Your task to perform on an android device: Add "dell xps" to the cart on ebay, then select checkout. Image 0: 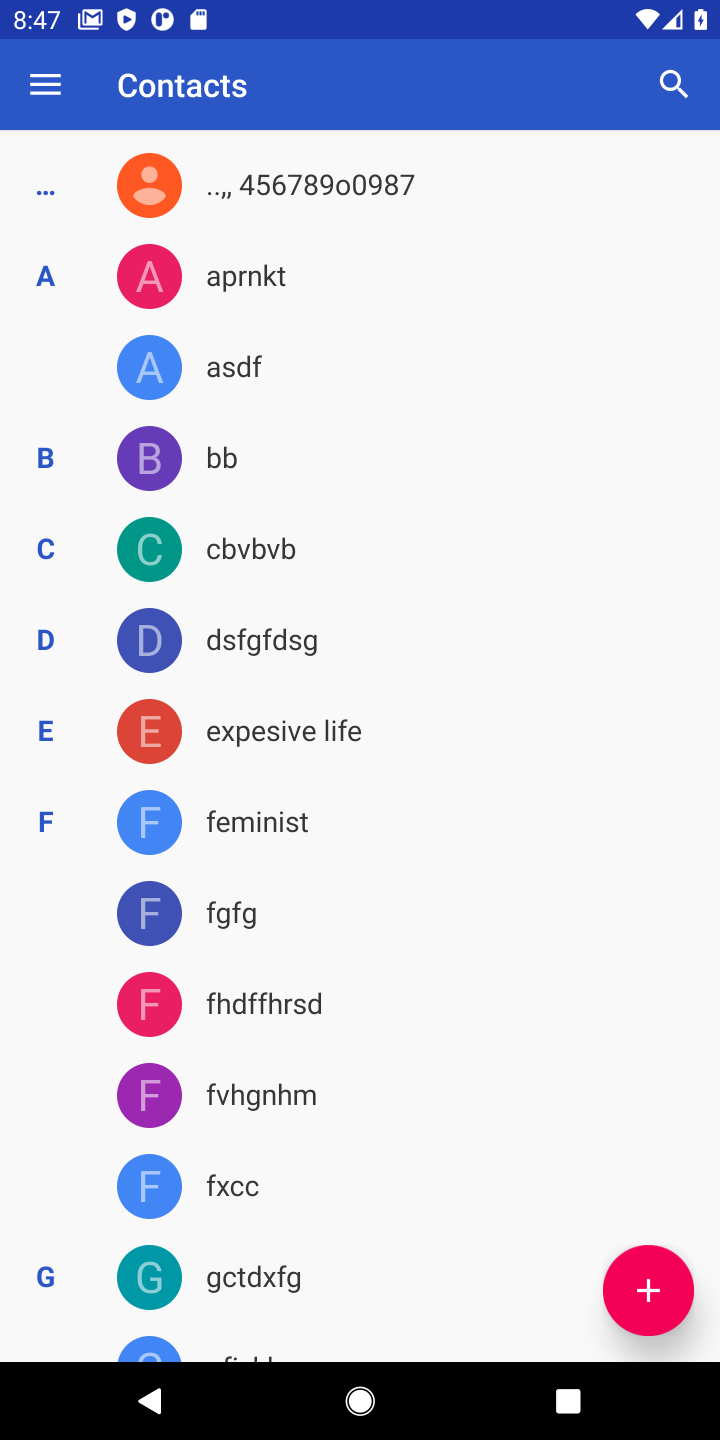
Step 0: press home button
Your task to perform on an android device: Add "dell xps" to the cart on ebay, then select checkout. Image 1: 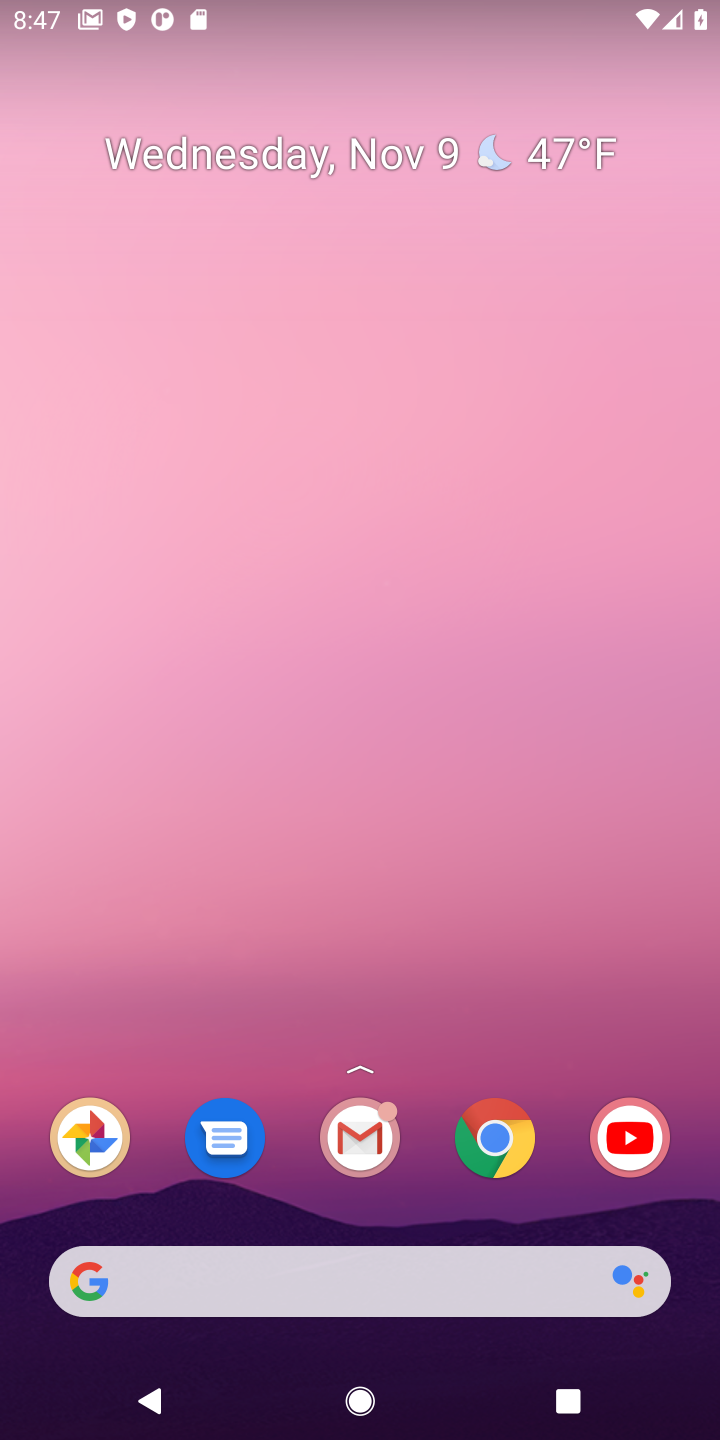
Step 1: drag from (409, 1236) to (293, 237)
Your task to perform on an android device: Add "dell xps" to the cart on ebay, then select checkout. Image 2: 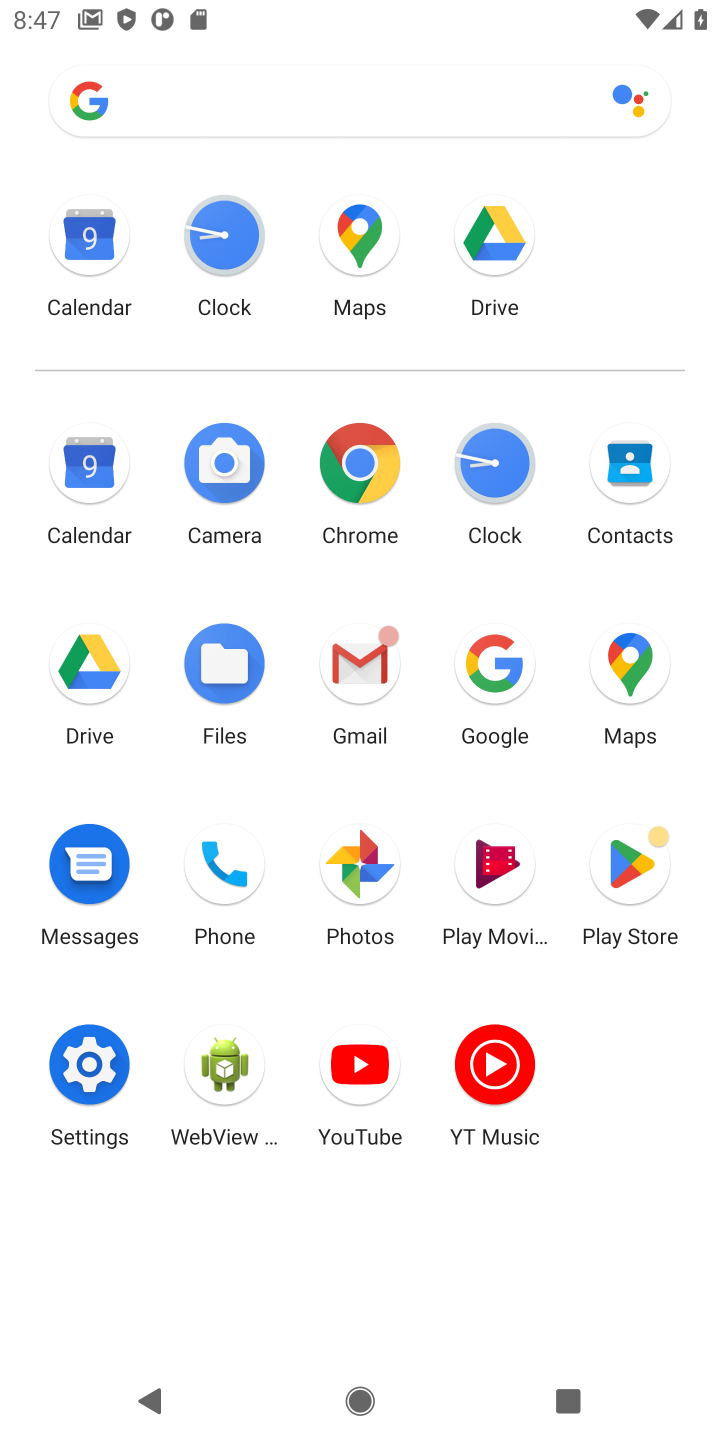
Step 2: click (367, 468)
Your task to perform on an android device: Add "dell xps" to the cart on ebay, then select checkout. Image 3: 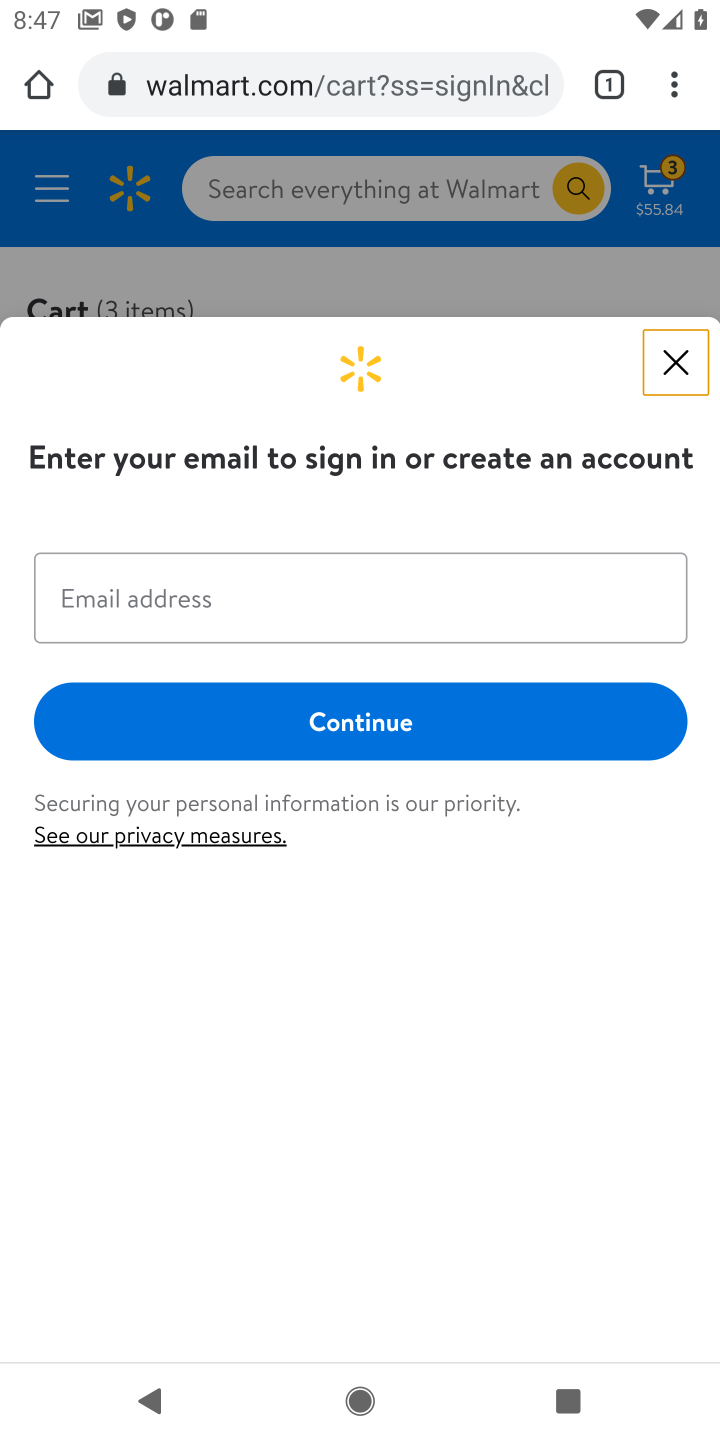
Step 3: click (317, 97)
Your task to perform on an android device: Add "dell xps" to the cart on ebay, then select checkout. Image 4: 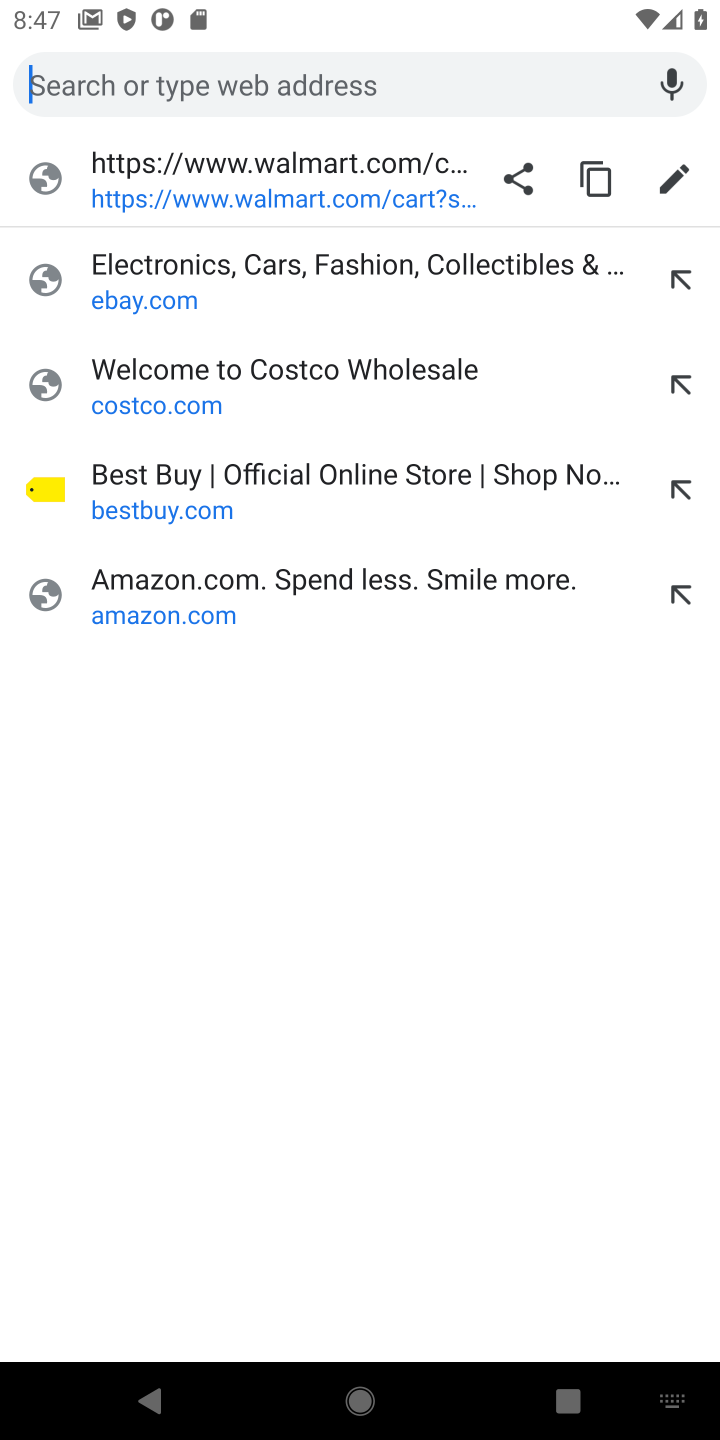
Step 4: type "ebay.com"
Your task to perform on an android device: Add "dell xps" to the cart on ebay, then select checkout. Image 5: 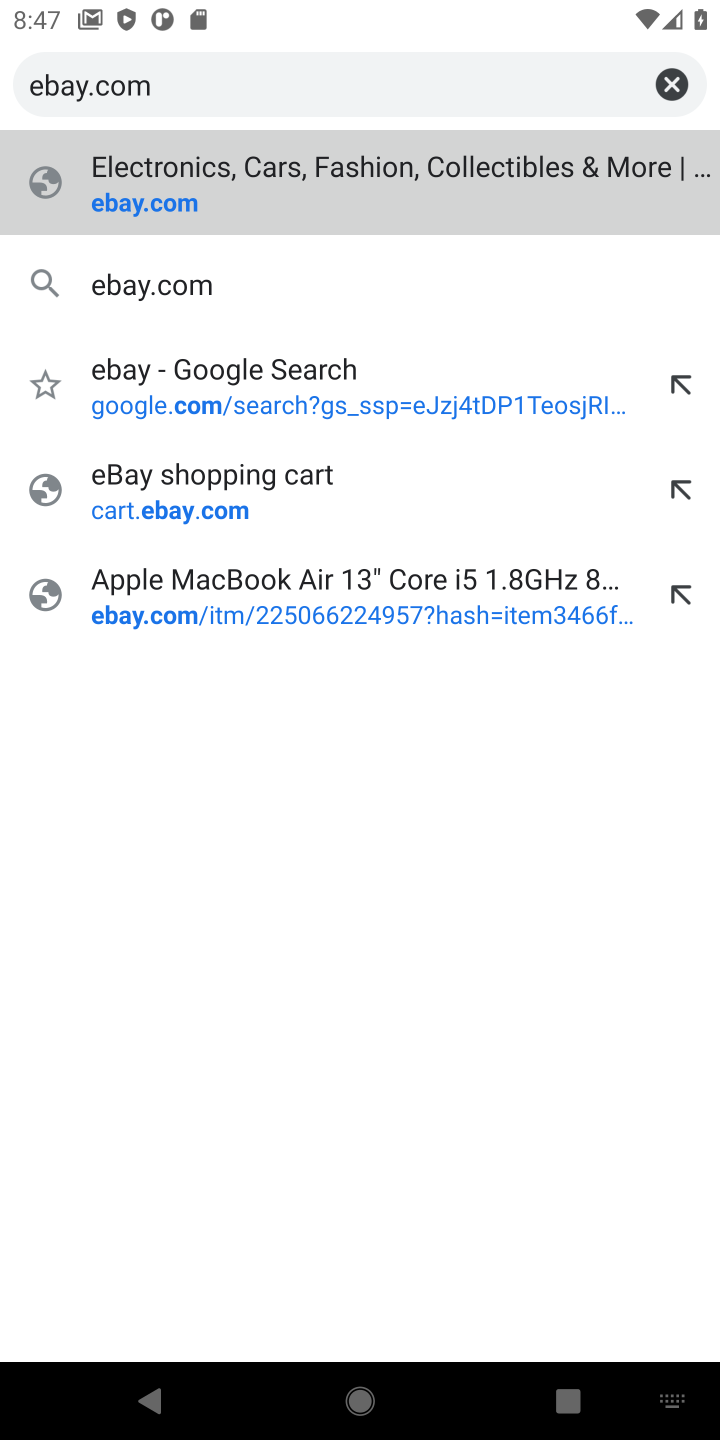
Step 5: press enter
Your task to perform on an android device: Add "dell xps" to the cart on ebay, then select checkout. Image 6: 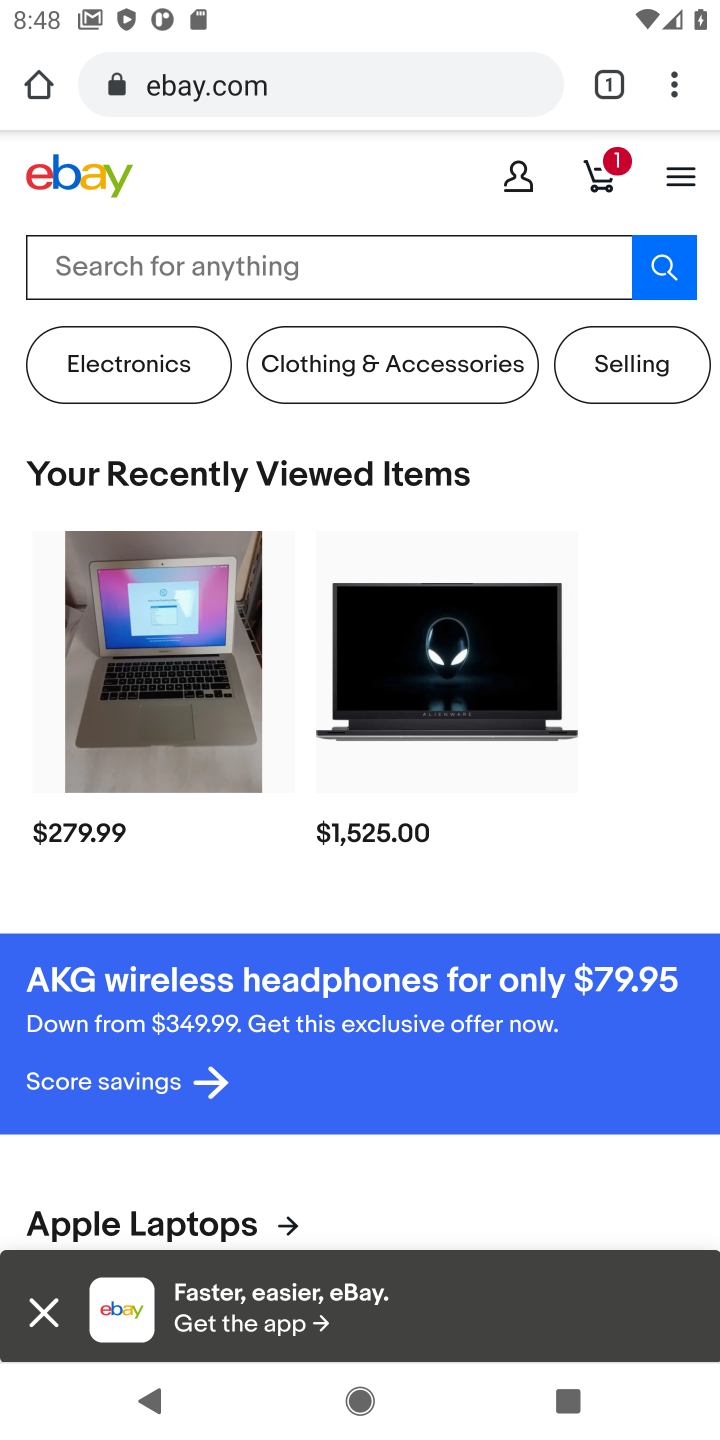
Step 6: click (332, 280)
Your task to perform on an android device: Add "dell xps" to the cart on ebay, then select checkout. Image 7: 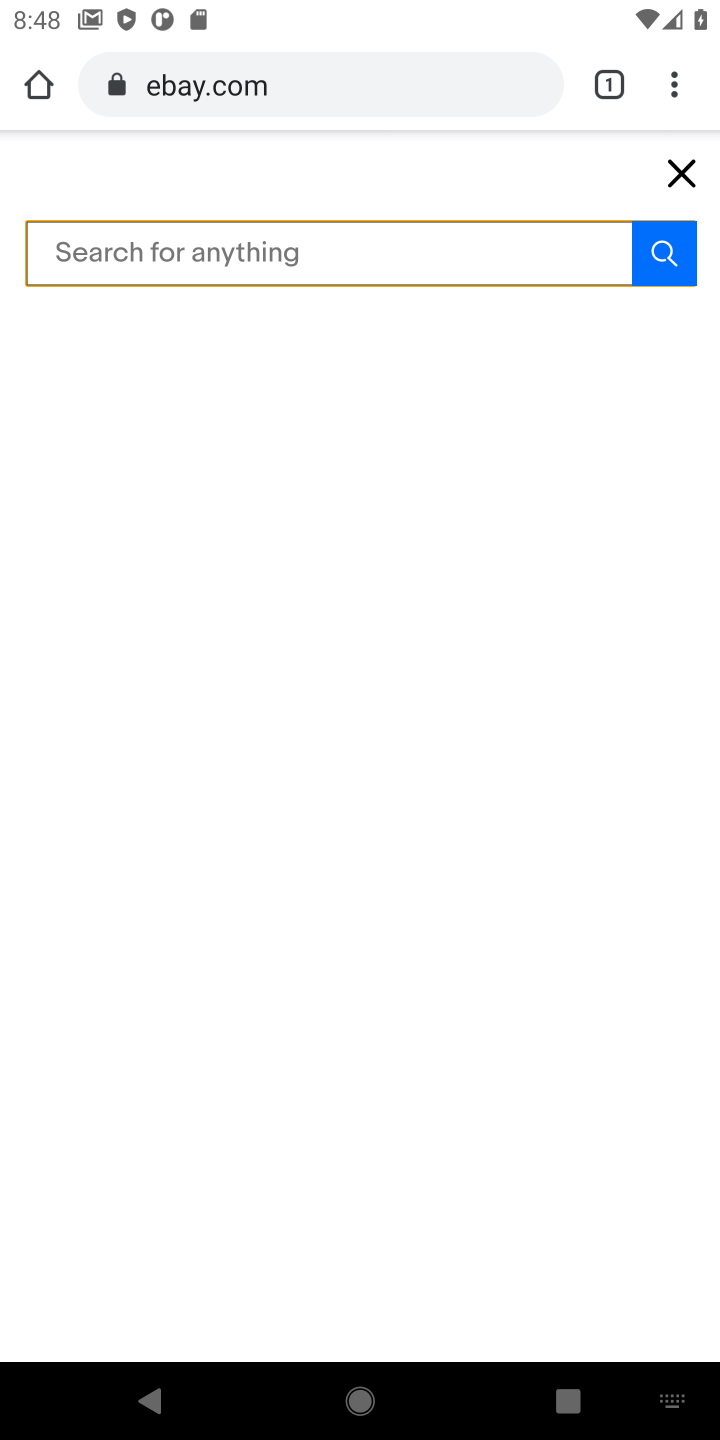
Step 7: type "dell xps"
Your task to perform on an android device: Add "dell xps" to the cart on ebay, then select checkout. Image 8: 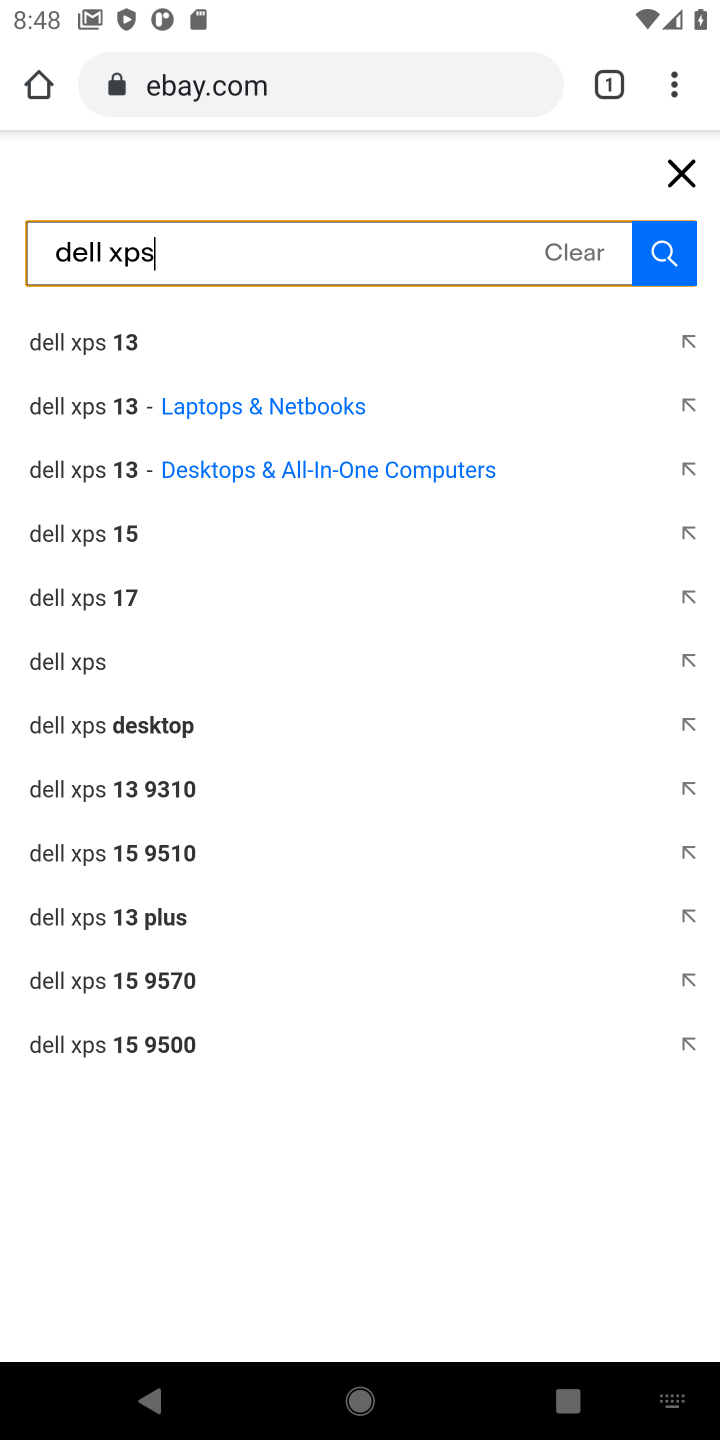
Step 8: click (685, 245)
Your task to perform on an android device: Add "dell xps" to the cart on ebay, then select checkout. Image 9: 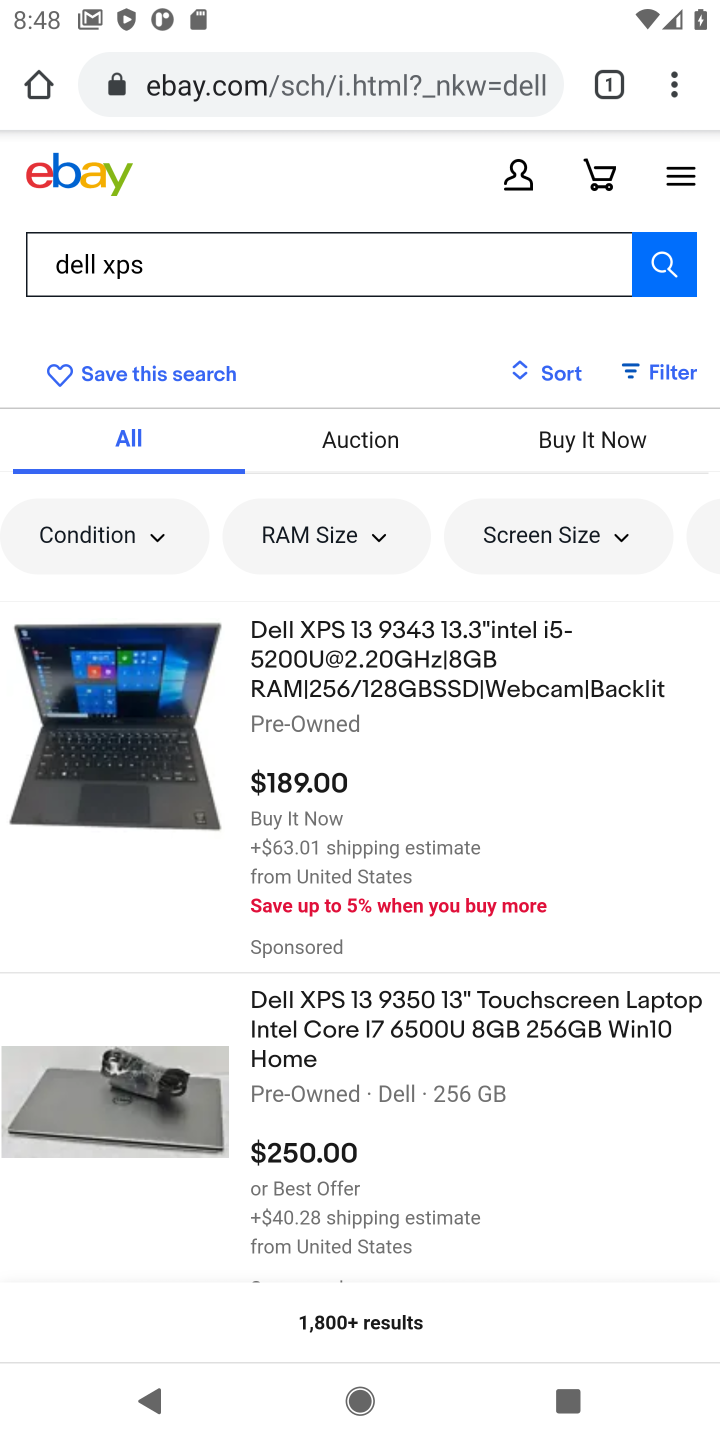
Step 9: drag from (513, 1097) to (476, 691)
Your task to perform on an android device: Add "dell xps" to the cart on ebay, then select checkout. Image 10: 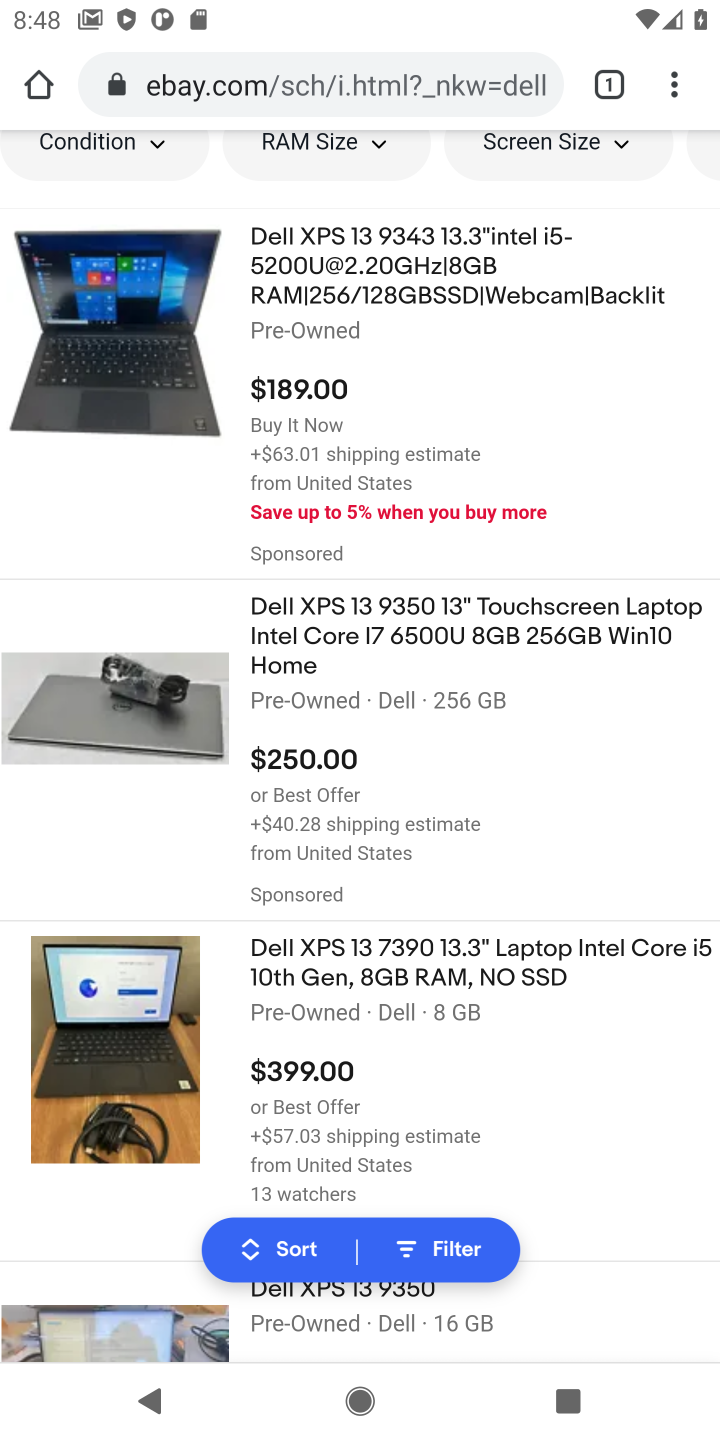
Step 10: click (294, 267)
Your task to perform on an android device: Add "dell xps" to the cart on ebay, then select checkout. Image 11: 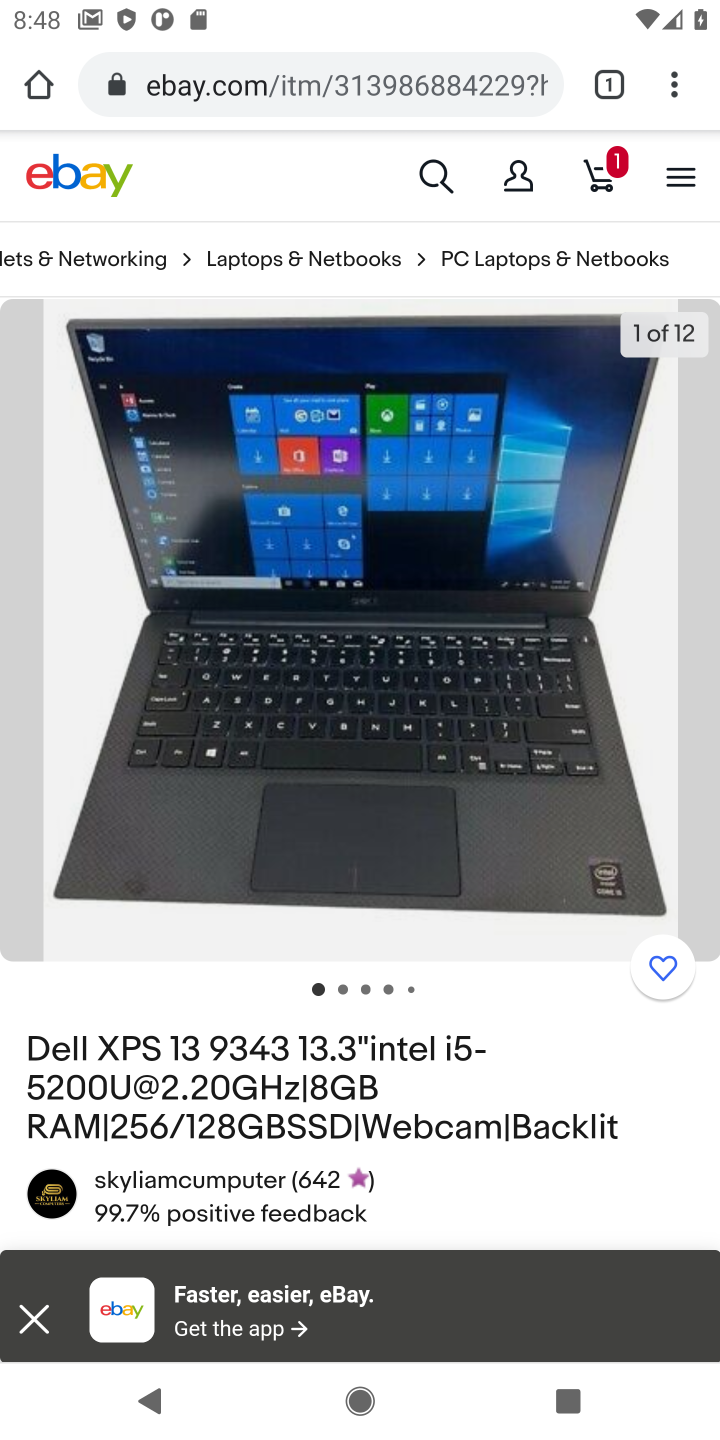
Step 11: drag from (406, 1092) to (493, 456)
Your task to perform on an android device: Add "dell xps" to the cart on ebay, then select checkout. Image 12: 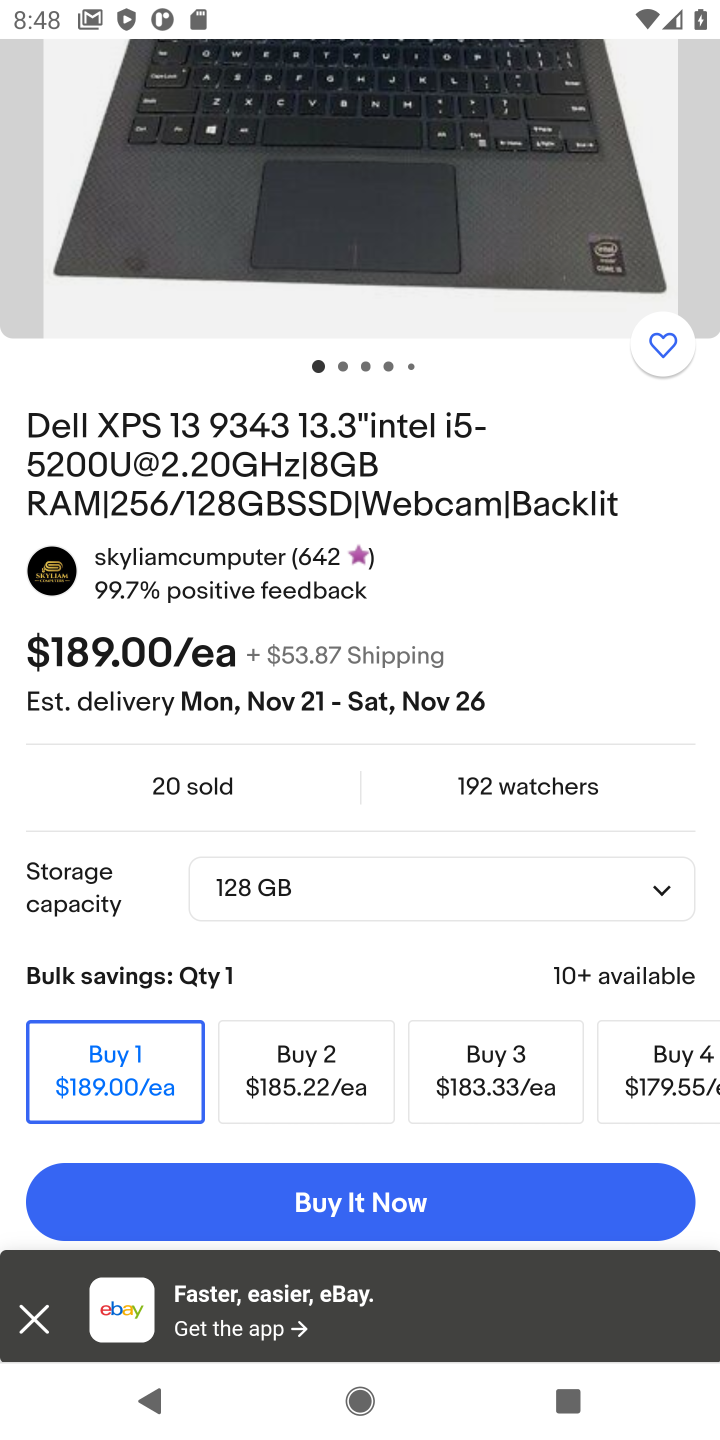
Step 12: drag from (383, 1058) to (388, 308)
Your task to perform on an android device: Add "dell xps" to the cart on ebay, then select checkout. Image 13: 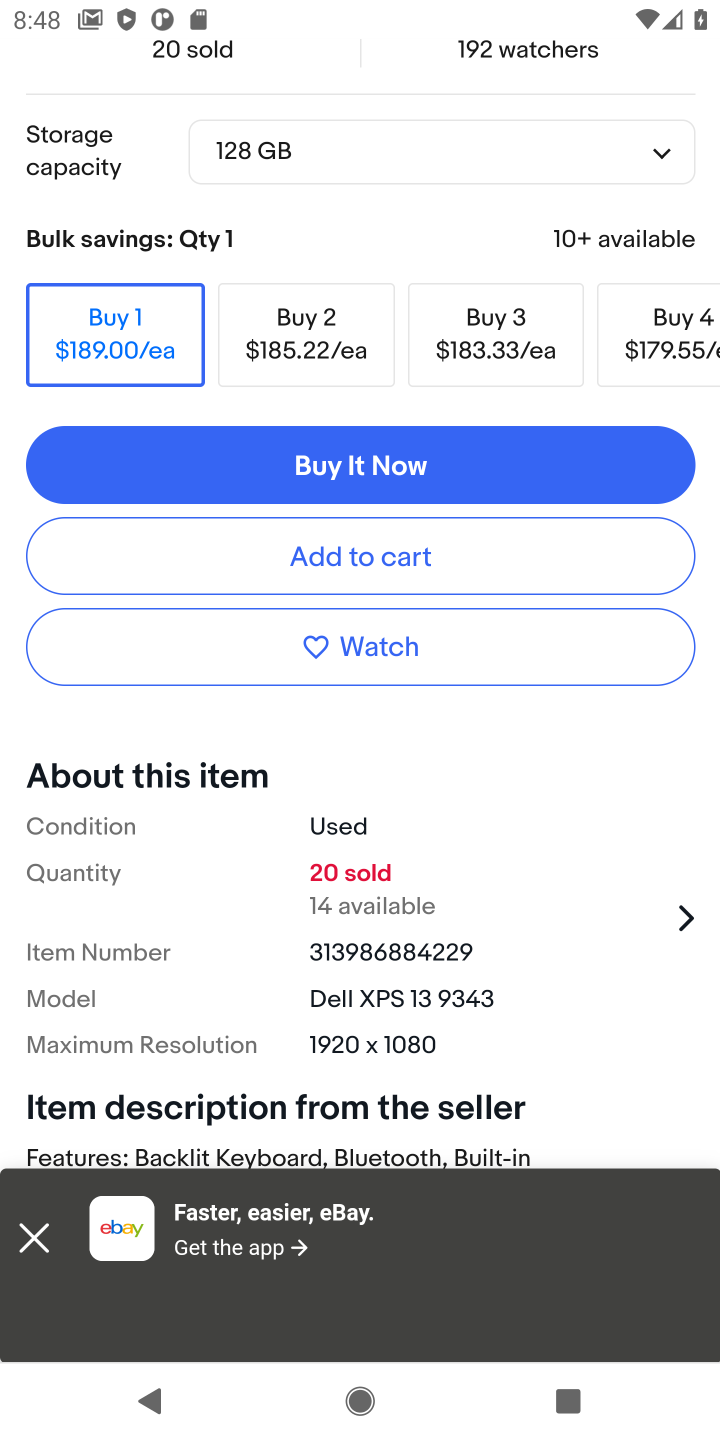
Step 13: click (414, 569)
Your task to perform on an android device: Add "dell xps" to the cart on ebay, then select checkout. Image 14: 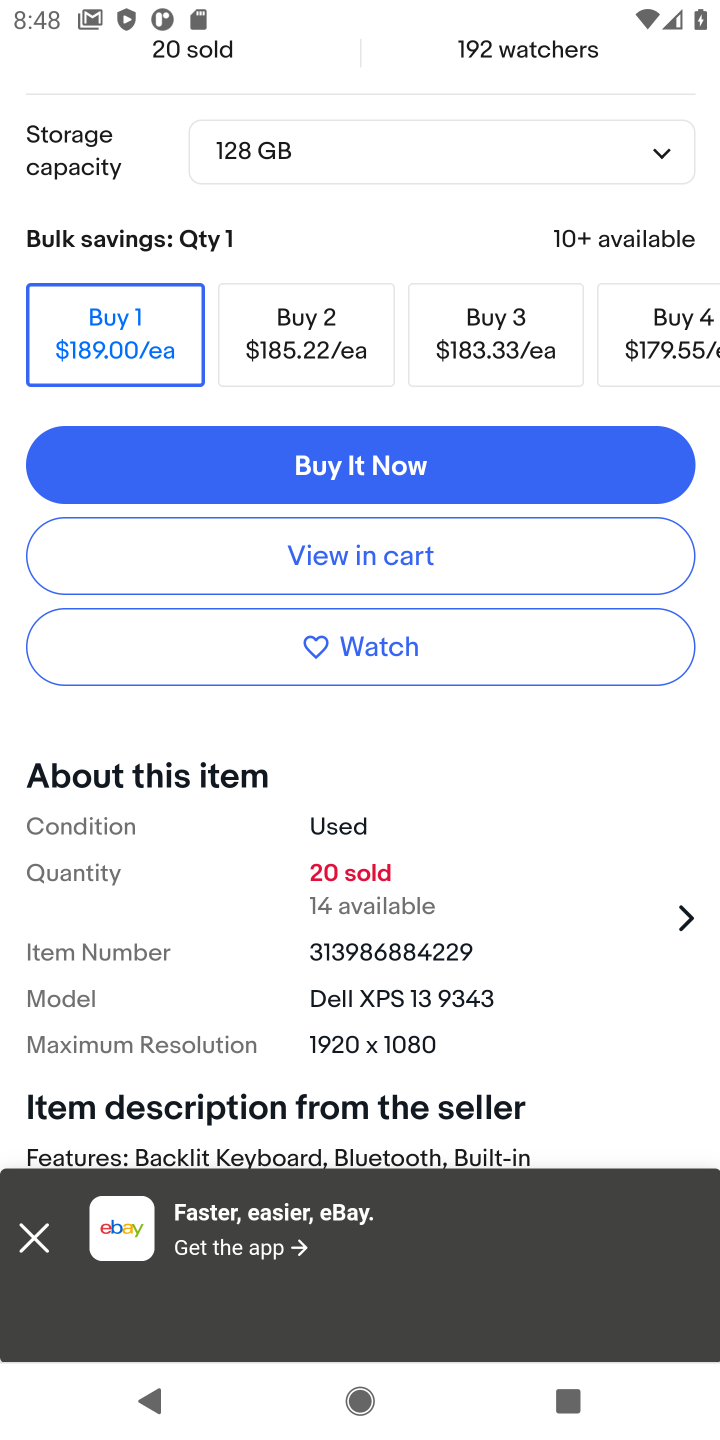
Step 14: click (361, 568)
Your task to perform on an android device: Add "dell xps" to the cart on ebay, then select checkout. Image 15: 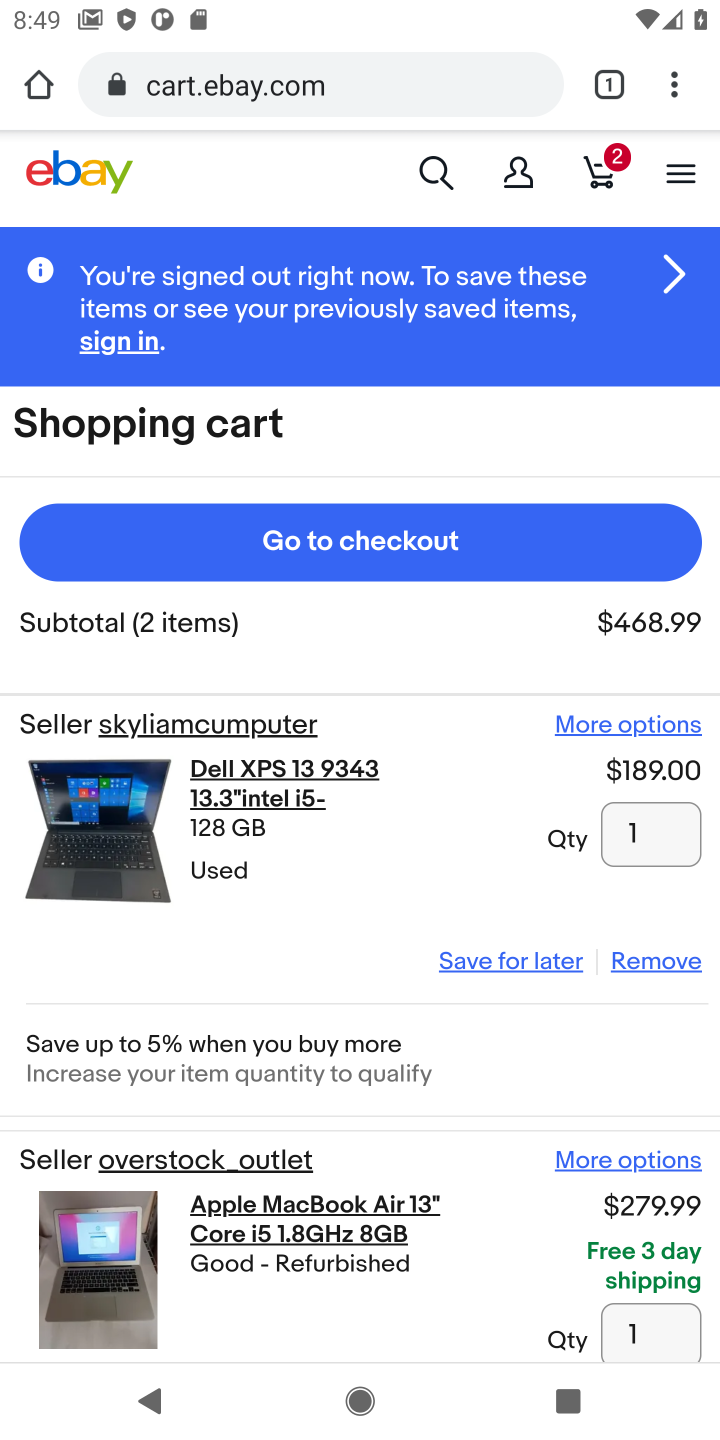
Step 15: click (475, 561)
Your task to perform on an android device: Add "dell xps" to the cart on ebay, then select checkout. Image 16: 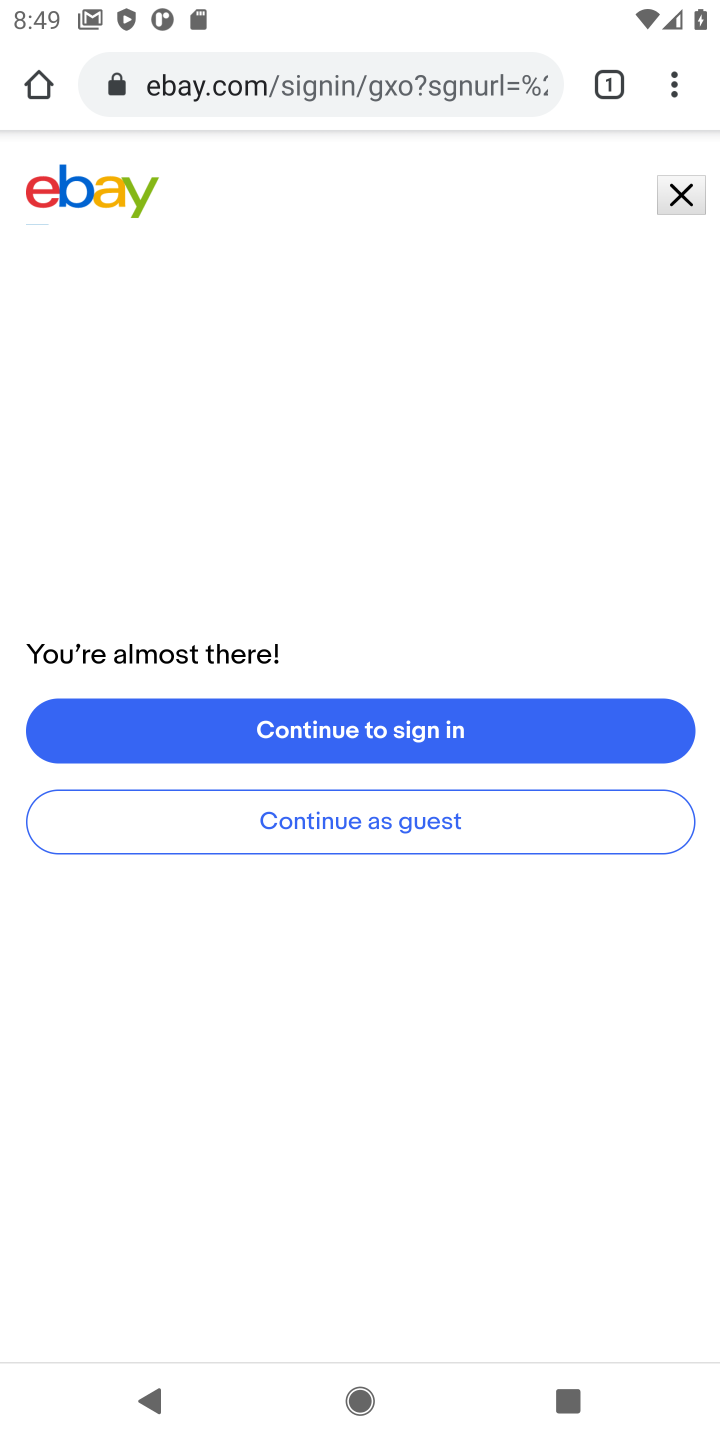
Step 16: task complete